Your task to perform on an android device: Open calendar and show me the second week of next month Image 0: 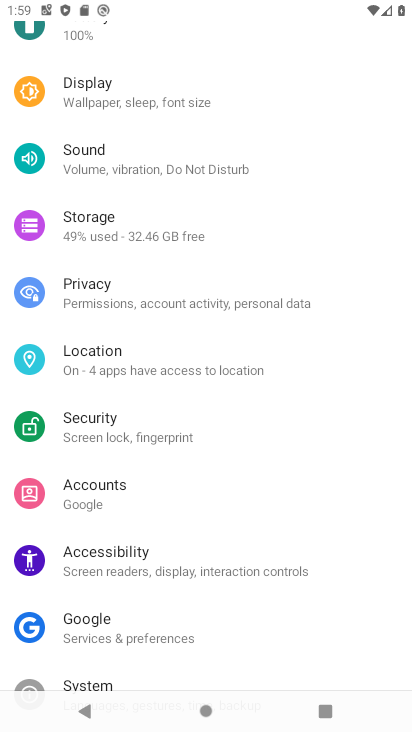
Step 0: press home button
Your task to perform on an android device: Open calendar and show me the second week of next month Image 1: 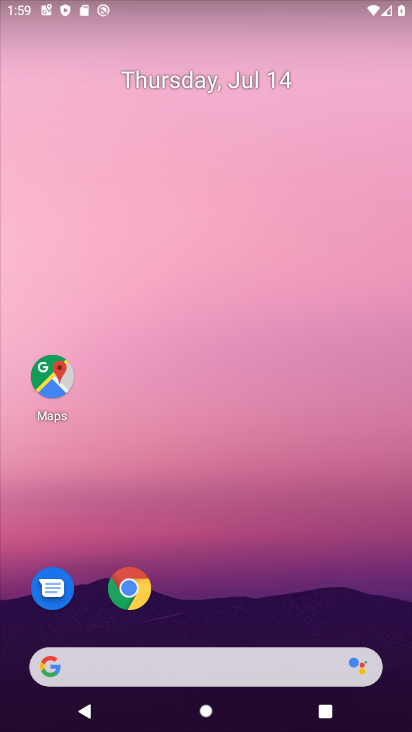
Step 1: drag from (128, 699) to (204, 0)
Your task to perform on an android device: Open calendar and show me the second week of next month Image 2: 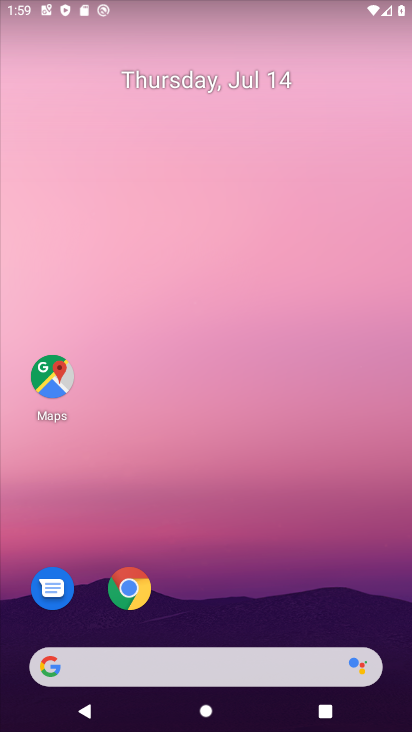
Step 2: drag from (150, 704) to (148, 142)
Your task to perform on an android device: Open calendar and show me the second week of next month Image 3: 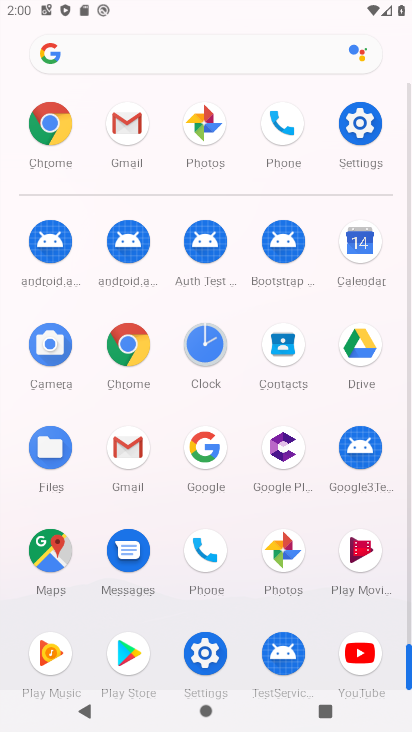
Step 3: click (351, 250)
Your task to perform on an android device: Open calendar and show me the second week of next month Image 4: 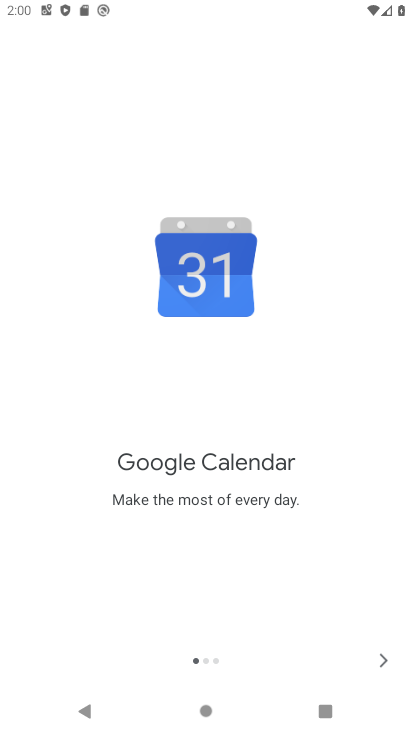
Step 4: click (374, 649)
Your task to perform on an android device: Open calendar and show me the second week of next month Image 5: 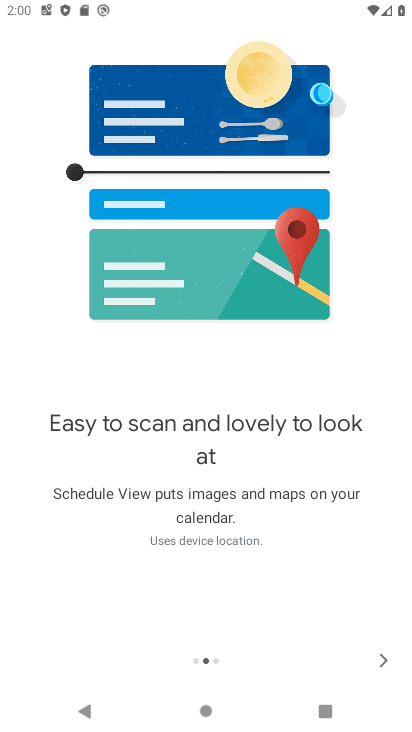
Step 5: click (374, 661)
Your task to perform on an android device: Open calendar and show me the second week of next month Image 6: 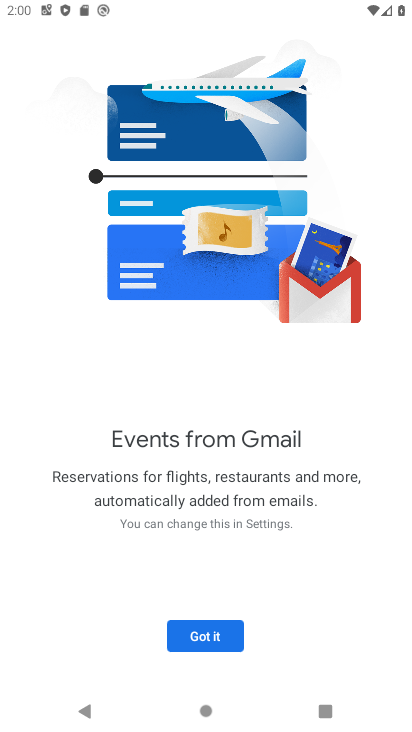
Step 6: click (180, 637)
Your task to perform on an android device: Open calendar and show me the second week of next month Image 7: 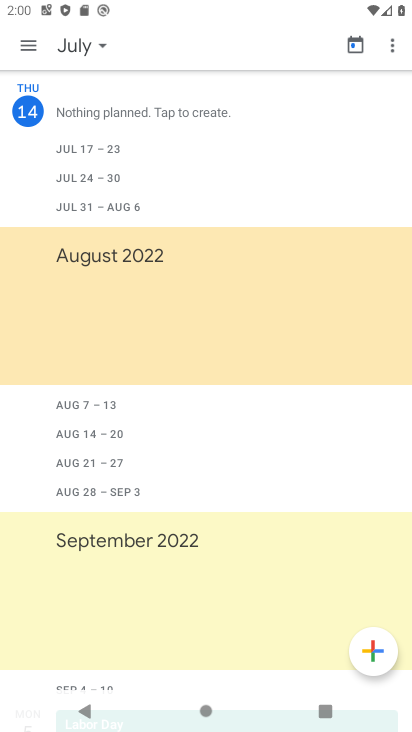
Step 7: click (61, 46)
Your task to perform on an android device: Open calendar and show me the second week of next month Image 8: 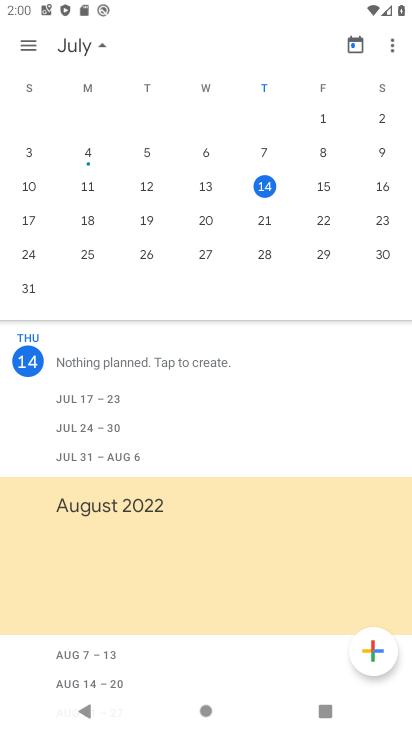
Step 8: drag from (307, 212) to (28, 304)
Your task to perform on an android device: Open calendar and show me the second week of next month Image 9: 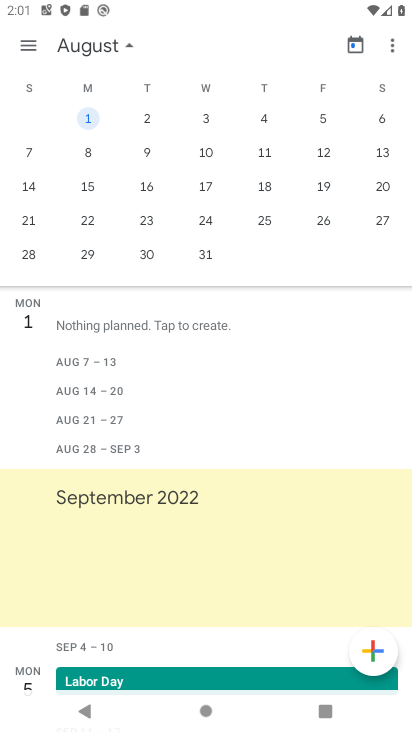
Step 9: click (21, 154)
Your task to perform on an android device: Open calendar and show me the second week of next month Image 10: 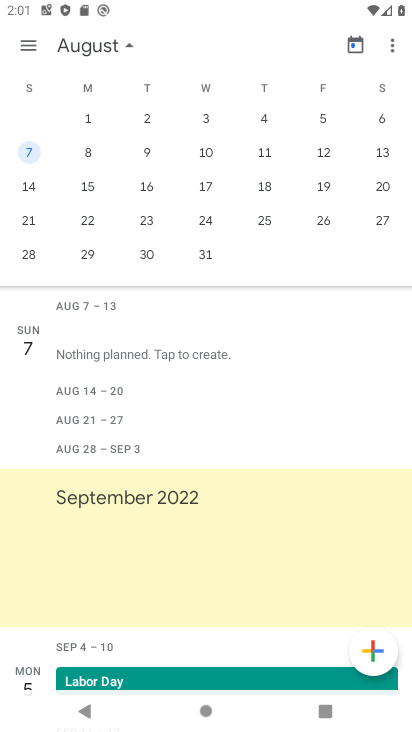
Step 10: task complete